Your task to perform on an android device: toggle pop-ups in chrome Image 0: 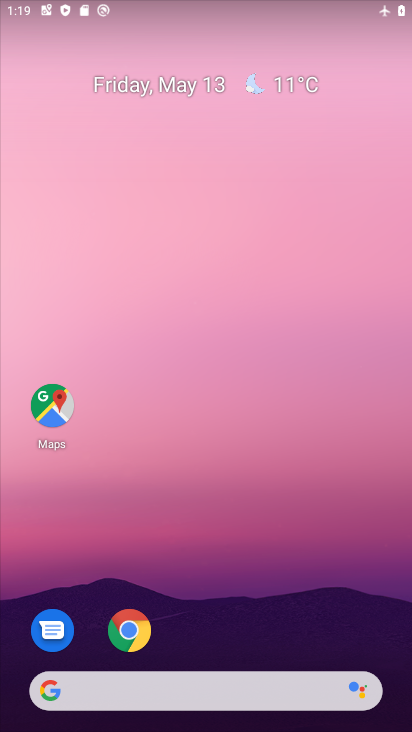
Step 0: click (135, 631)
Your task to perform on an android device: toggle pop-ups in chrome Image 1: 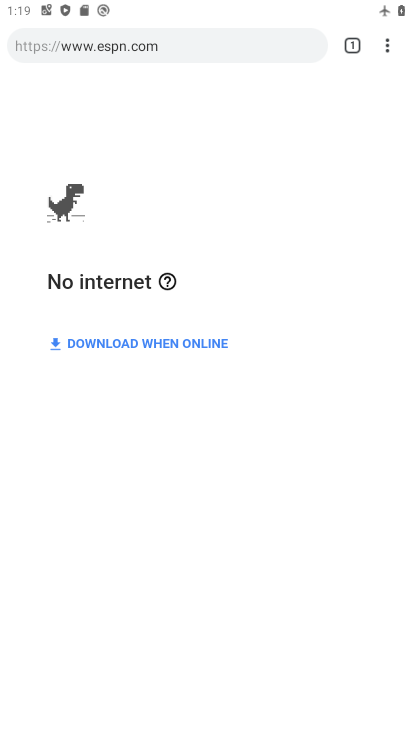
Step 1: drag from (389, 46) to (211, 505)
Your task to perform on an android device: toggle pop-ups in chrome Image 2: 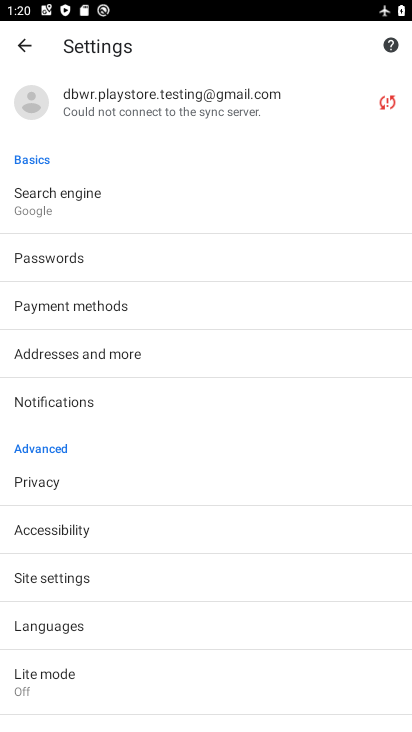
Step 2: click (61, 573)
Your task to perform on an android device: toggle pop-ups in chrome Image 3: 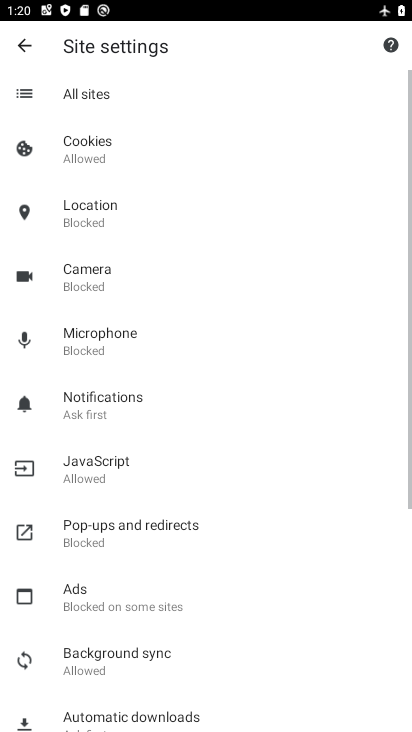
Step 3: click (139, 528)
Your task to perform on an android device: toggle pop-ups in chrome Image 4: 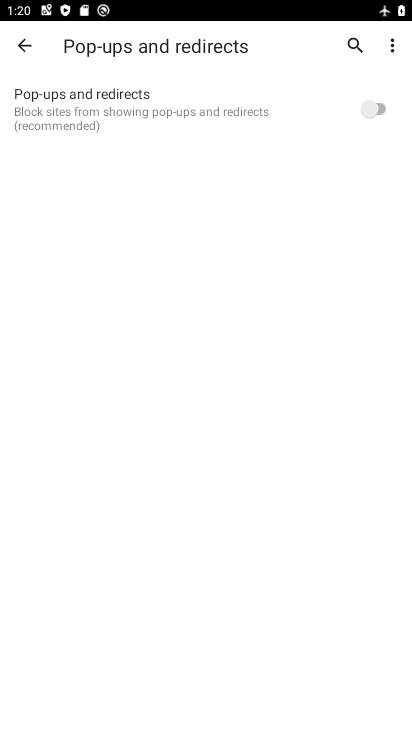
Step 4: click (361, 113)
Your task to perform on an android device: toggle pop-ups in chrome Image 5: 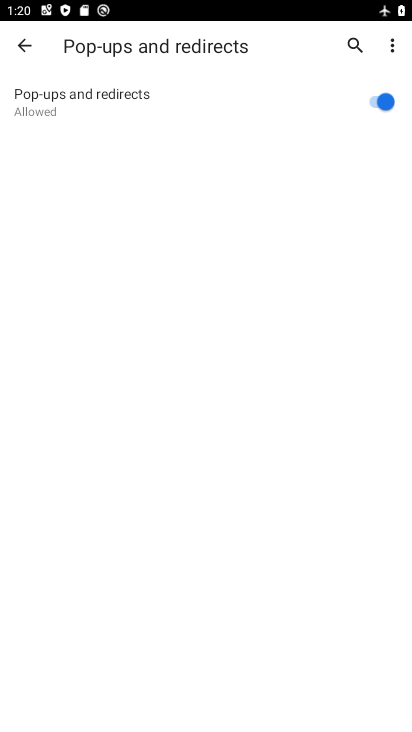
Step 5: task complete